Your task to perform on an android device: turn notification dots off Image 0: 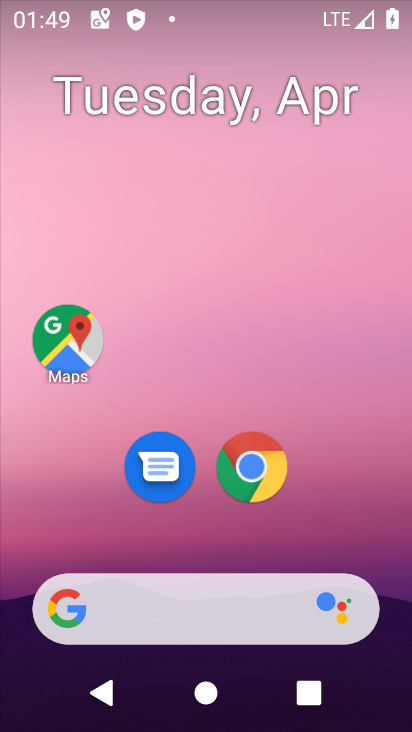
Step 0: drag from (390, 541) to (389, 170)
Your task to perform on an android device: turn notification dots off Image 1: 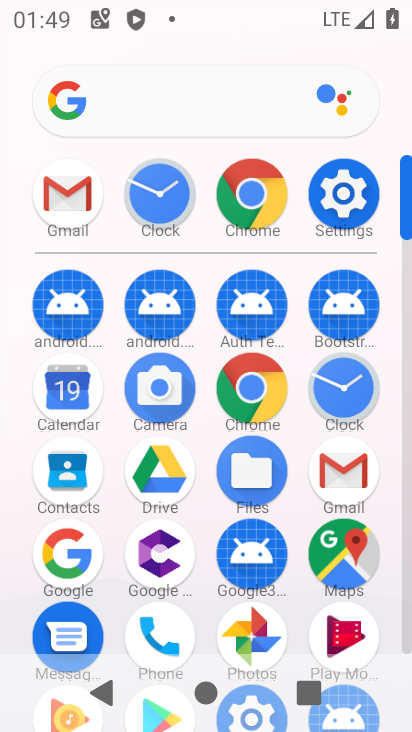
Step 1: click (321, 193)
Your task to perform on an android device: turn notification dots off Image 2: 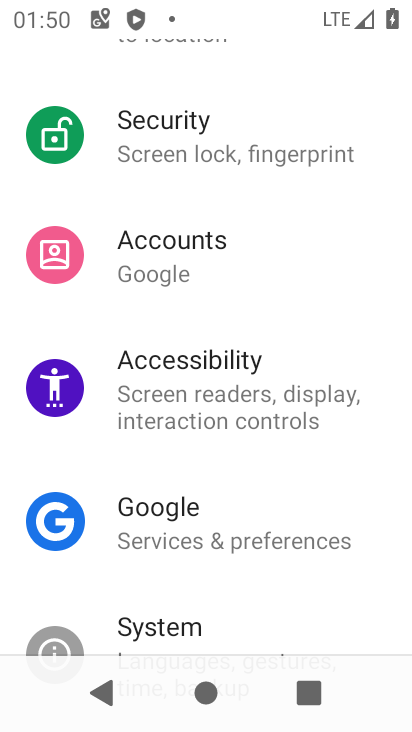
Step 2: drag from (364, 527) to (376, 327)
Your task to perform on an android device: turn notification dots off Image 3: 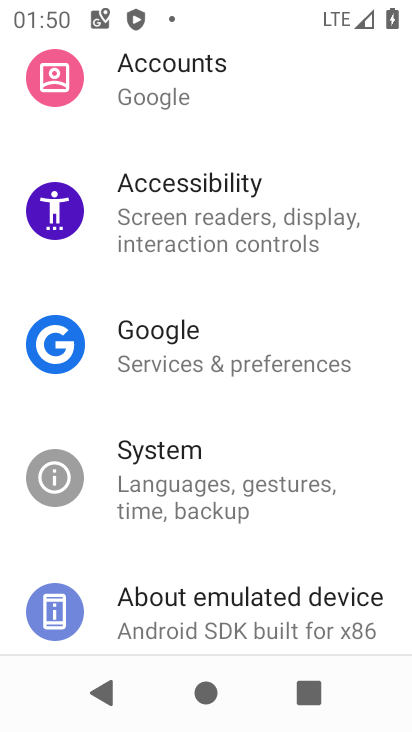
Step 3: drag from (382, 504) to (385, 320)
Your task to perform on an android device: turn notification dots off Image 4: 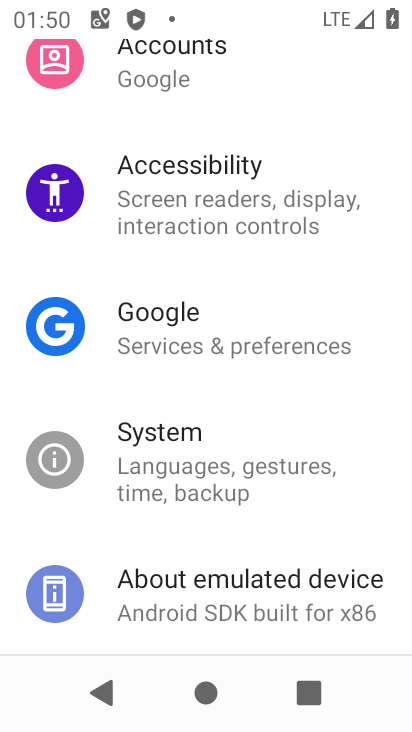
Step 4: drag from (386, 240) to (375, 497)
Your task to perform on an android device: turn notification dots off Image 5: 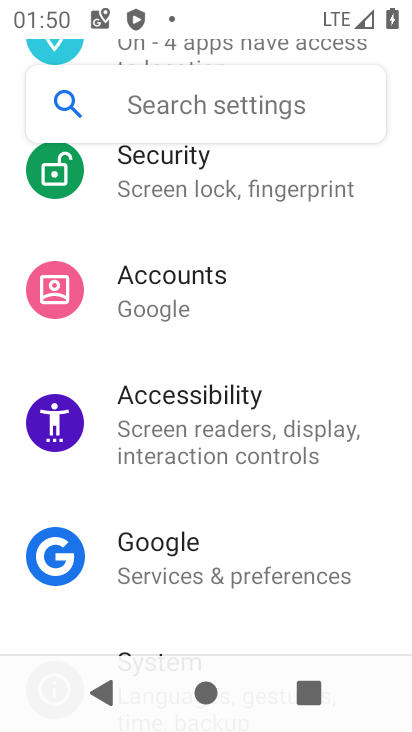
Step 5: drag from (389, 274) to (386, 474)
Your task to perform on an android device: turn notification dots off Image 6: 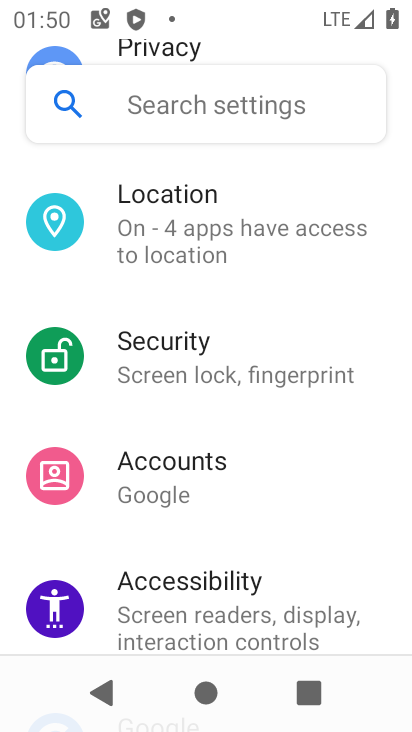
Step 6: drag from (386, 254) to (366, 524)
Your task to perform on an android device: turn notification dots off Image 7: 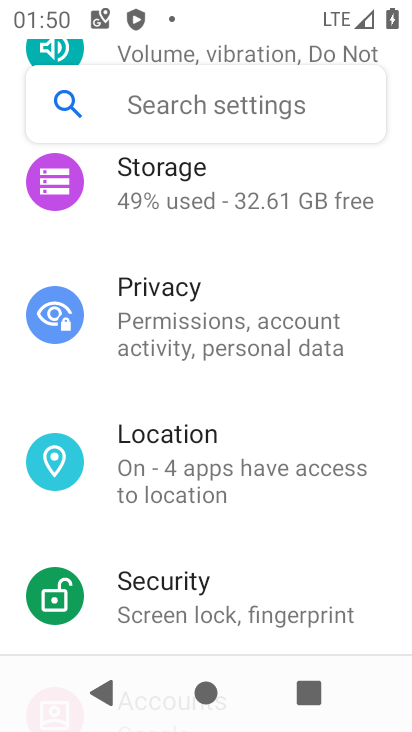
Step 7: drag from (370, 283) to (351, 549)
Your task to perform on an android device: turn notification dots off Image 8: 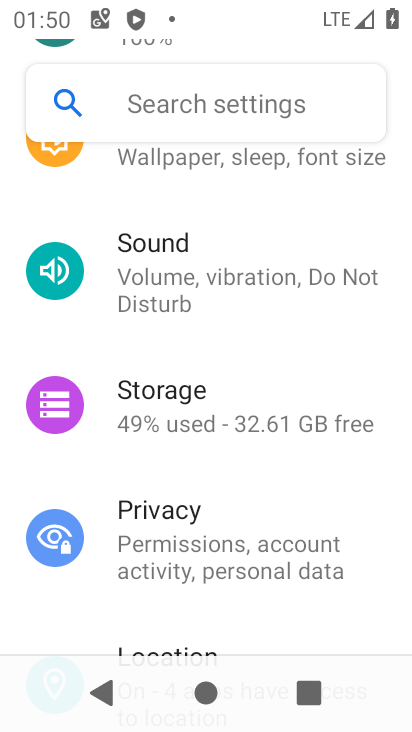
Step 8: drag from (383, 220) to (383, 372)
Your task to perform on an android device: turn notification dots off Image 9: 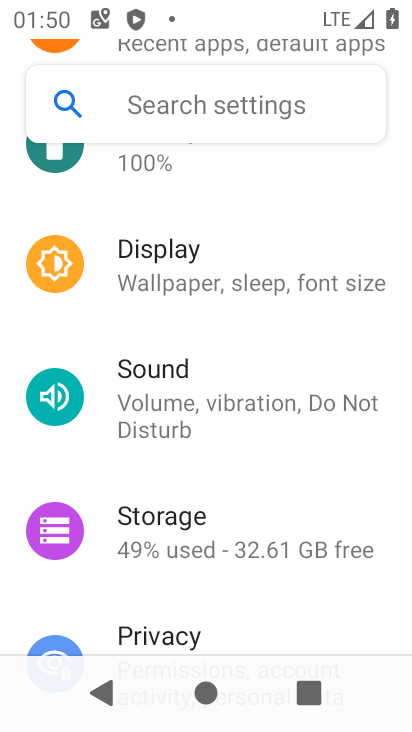
Step 9: drag from (394, 221) to (391, 502)
Your task to perform on an android device: turn notification dots off Image 10: 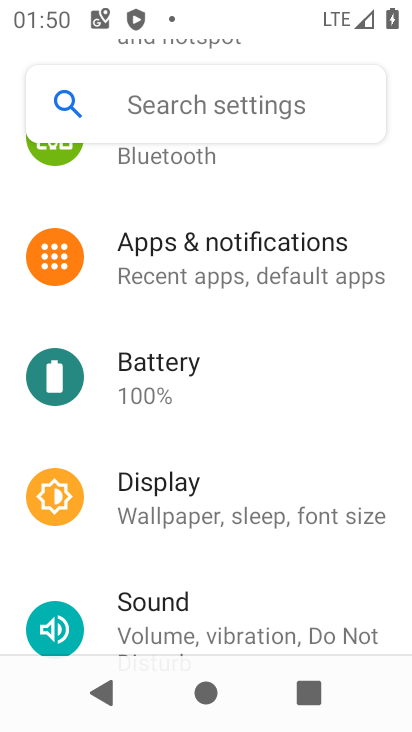
Step 10: click (214, 256)
Your task to perform on an android device: turn notification dots off Image 11: 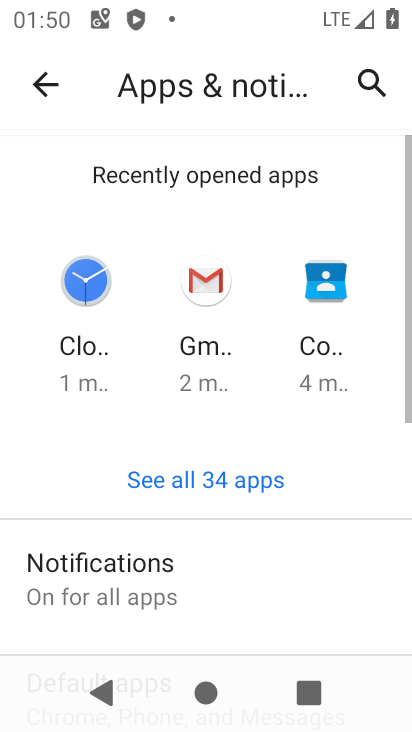
Step 11: drag from (276, 573) to (269, 332)
Your task to perform on an android device: turn notification dots off Image 12: 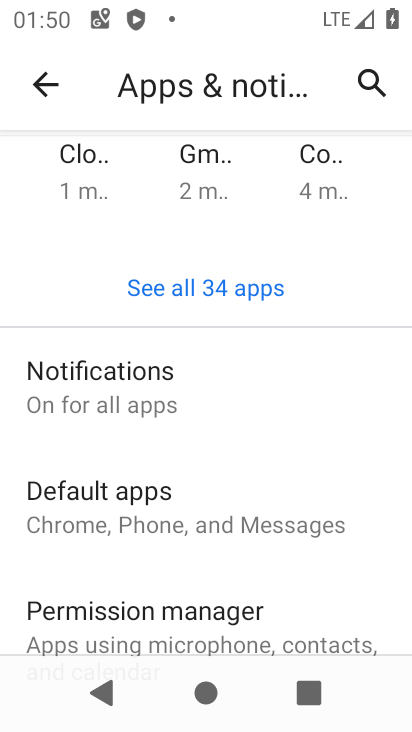
Step 12: drag from (256, 455) to (267, 275)
Your task to perform on an android device: turn notification dots off Image 13: 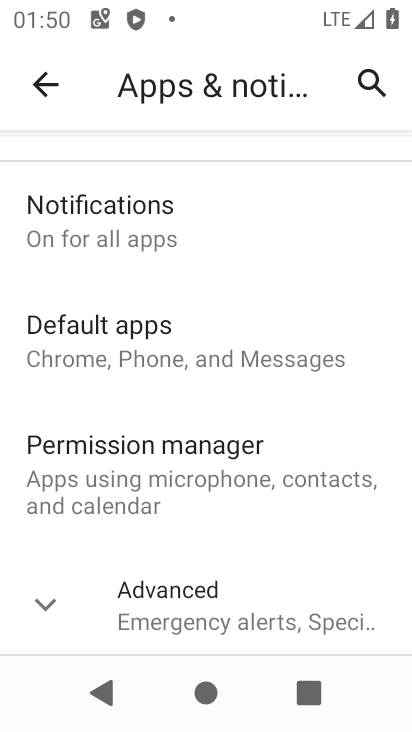
Step 13: click (142, 223)
Your task to perform on an android device: turn notification dots off Image 14: 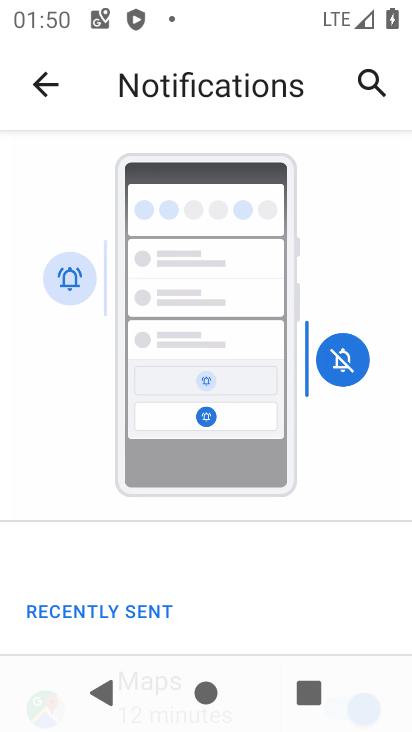
Step 14: drag from (297, 551) to (304, 318)
Your task to perform on an android device: turn notification dots off Image 15: 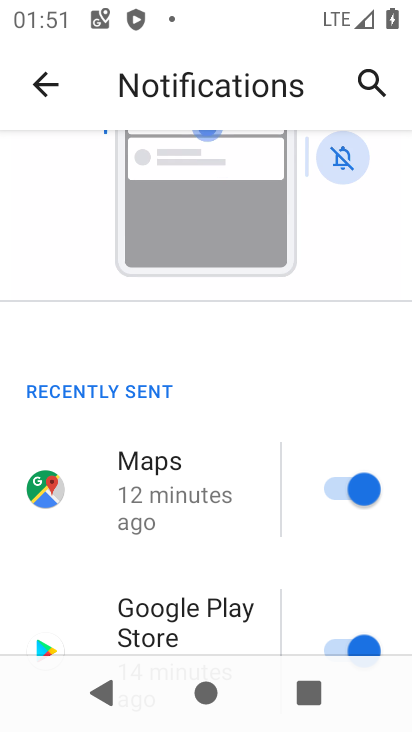
Step 15: drag from (249, 535) to (265, 310)
Your task to perform on an android device: turn notification dots off Image 16: 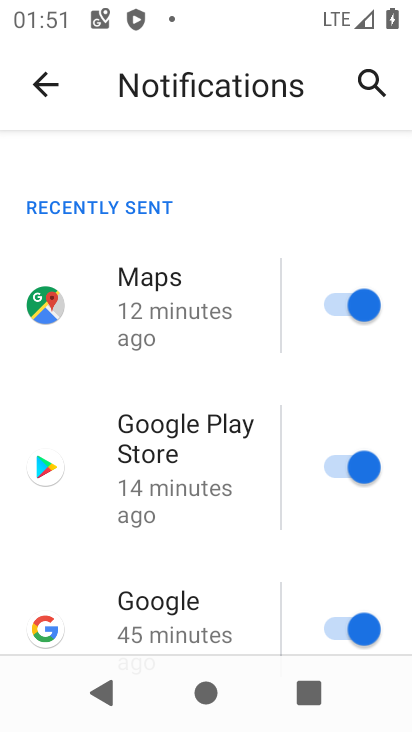
Step 16: drag from (246, 541) to (259, 297)
Your task to perform on an android device: turn notification dots off Image 17: 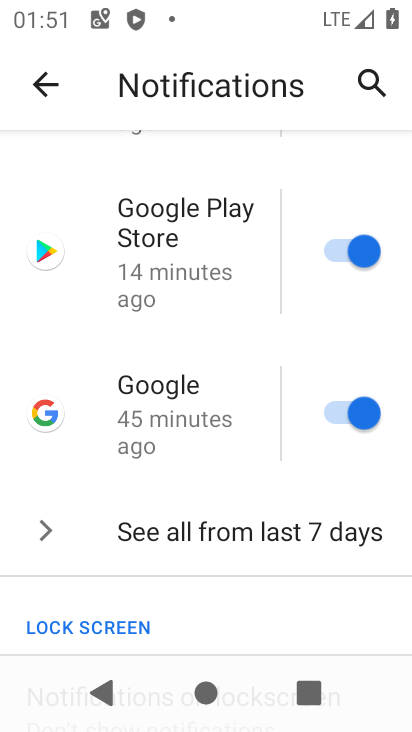
Step 17: drag from (254, 571) to (250, 293)
Your task to perform on an android device: turn notification dots off Image 18: 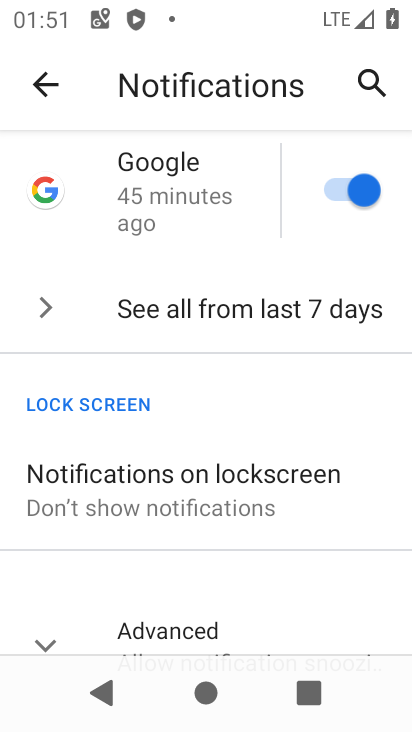
Step 18: drag from (269, 556) to (265, 345)
Your task to perform on an android device: turn notification dots off Image 19: 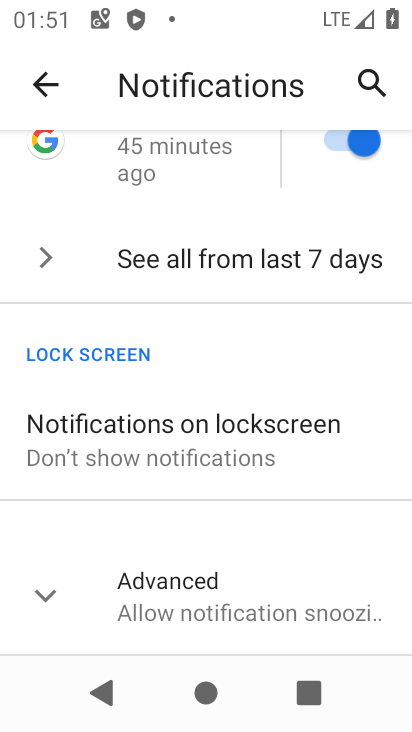
Step 19: click (221, 596)
Your task to perform on an android device: turn notification dots off Image 20: 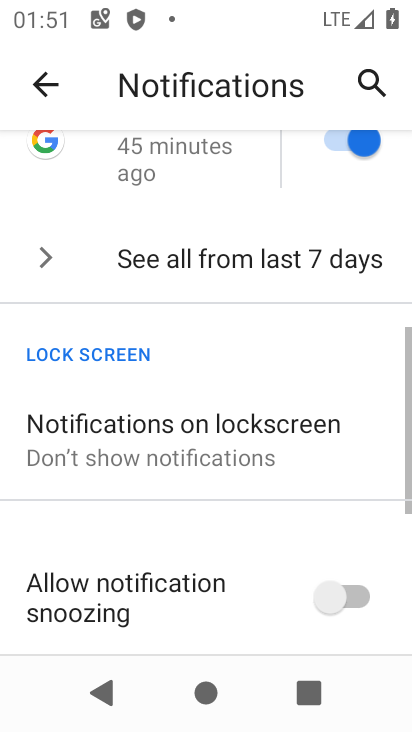
Step 20: task complete